Your task to perform on an android device: toggle airplane mode Image 0: 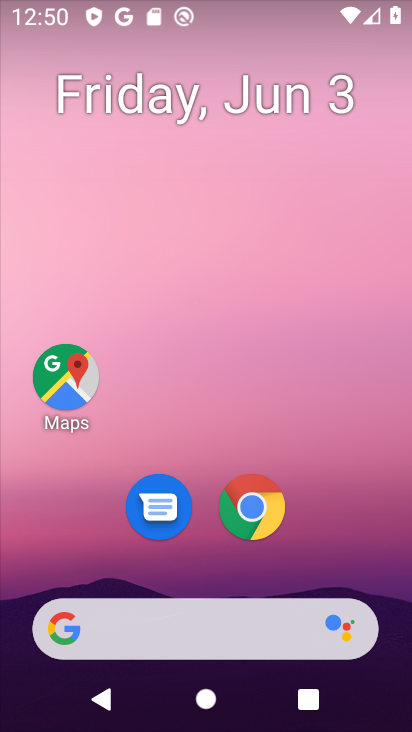
Step 0: drag from (326, 543) to (287, 171)
Your task to perform on an android device: toggle airplane mode Image 1: 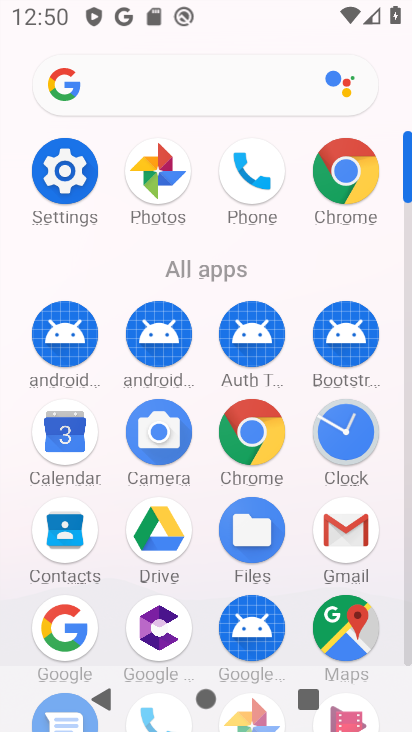
Step 1: click (83, 180)
Your task to perform on an android device: toggle airplane mode Image 2: 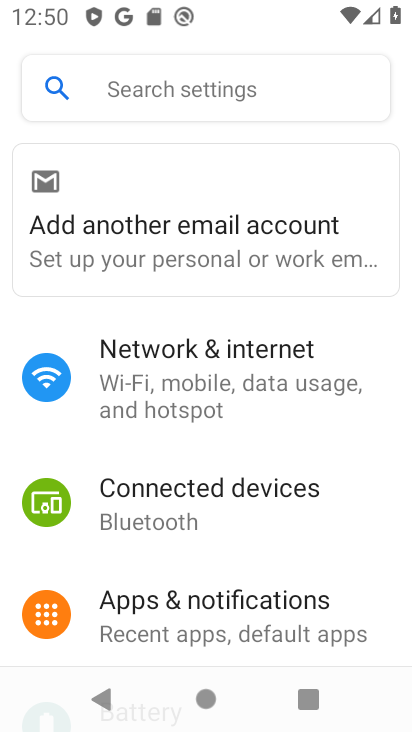
Step 2: drag from (269, 573) to (270, 306)
Your task to perform on an android device: toggle airplane mode Image 3: 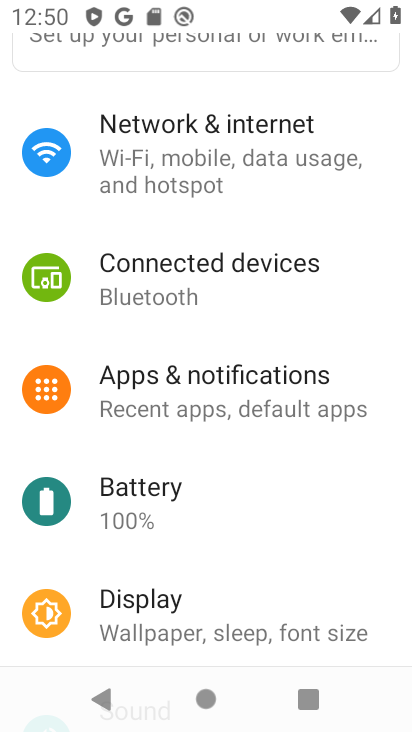
Step 3: click (207, 155)
Your task to perform on an android device: toggle airplane mode Image 4: 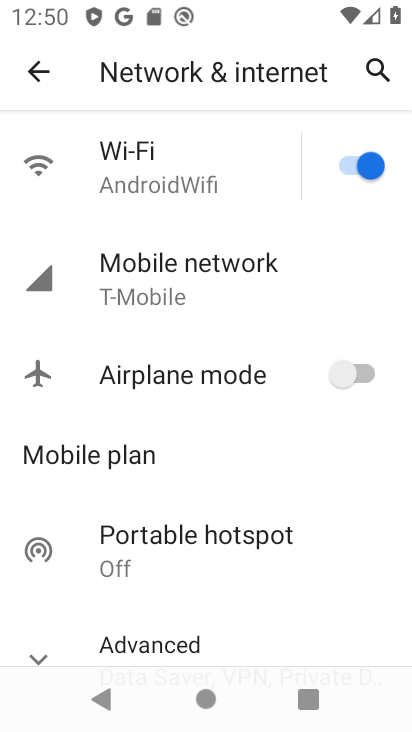
Step 4: click (369, 374)
Your task to perform on an android device: toggle airplane mode Image 5: 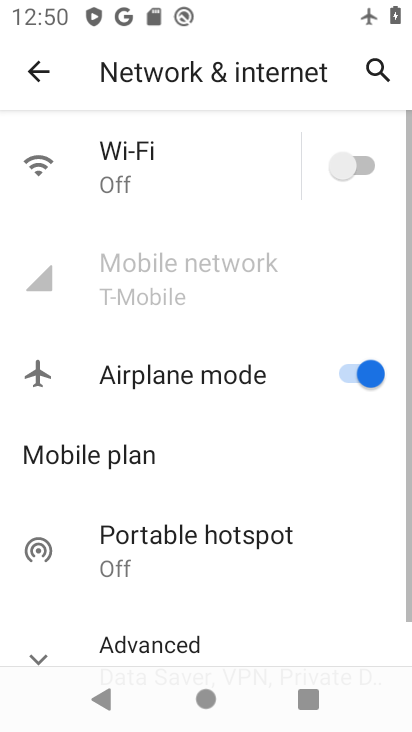
Step 5: task complete